Your task to perform on an android device: Open Chrome and go to the settings page Image 0: 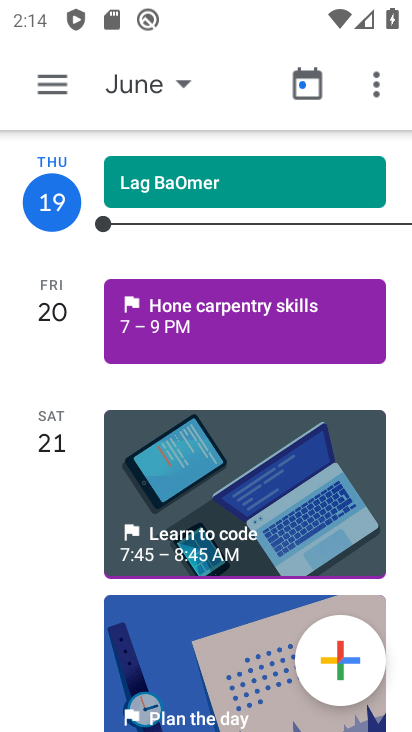
Step 0: press home button
Your task to perform on an android device: Open Chrome and go to the settings page Image 1: 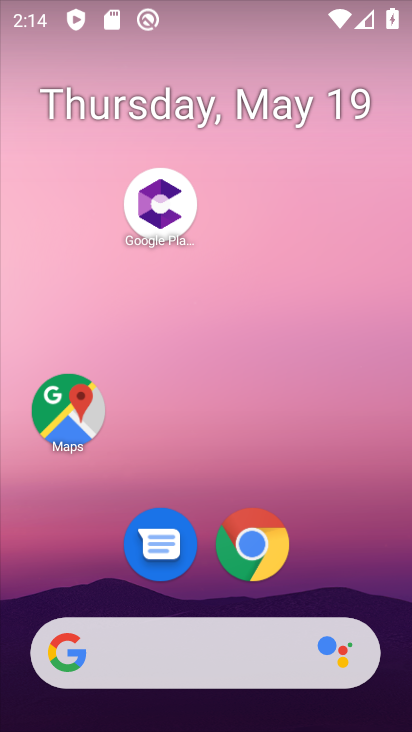
Step 1: drag from (264, 584) to (238, 170)
Your task to perform on an android device: Open Chrome and go to the settings page Image 2: 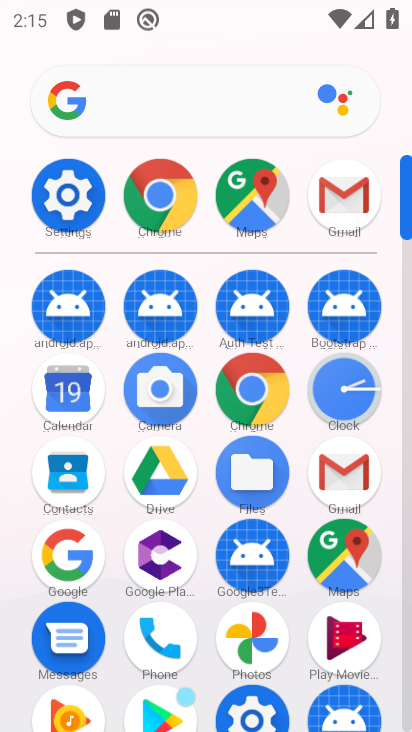
Step 2: click (144, 194)
Your task to perform on an android device: Open Chrome and go to the settings page Image 3: 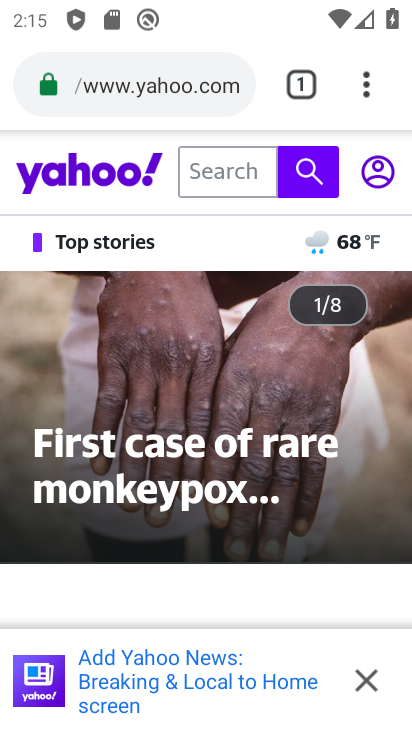
Step 3: click (361, 87)
Your task to perform on an android device: Open Chrome and go to the settings page Image 4: 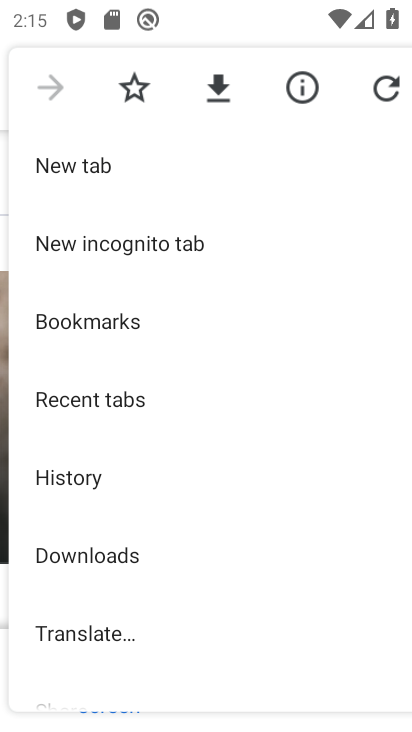
Step 4: drag from (183, 531) to (201, 364)
Your task to perform on an android device: Open Chrome and go to the settings page Image 5: 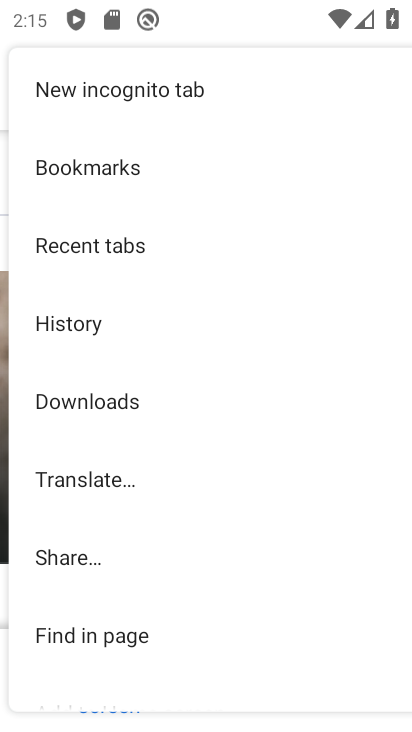
Step 5: drag from (167, 502) to (205, 271)
Your task to perform on an android device: Open Chrome and go to the settings page Image 6: 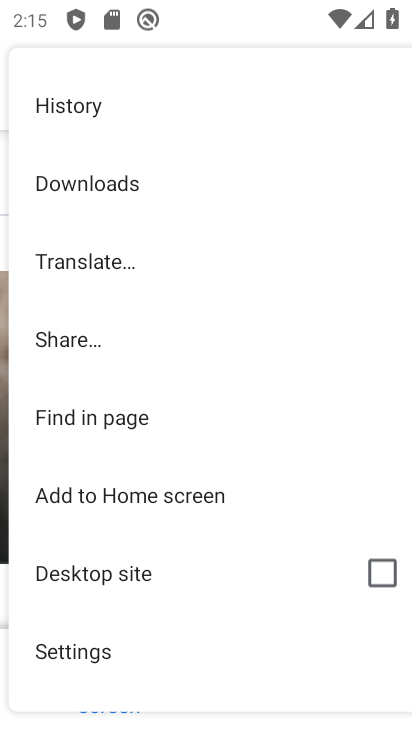
Step 6: click (95, 641)
Your task to perform on an android device: Open Chrome and go to the settings page Image 7: 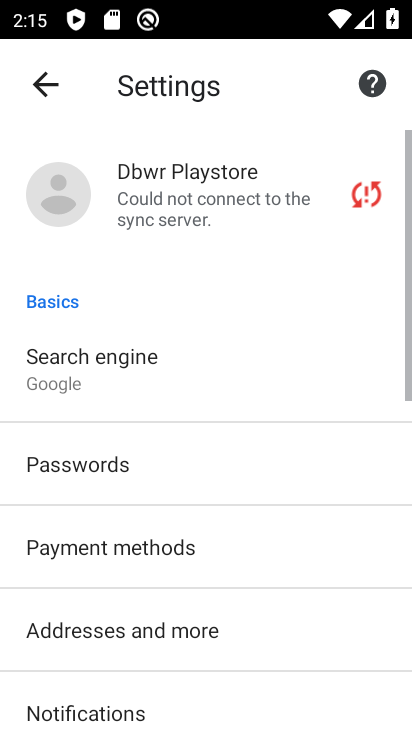
Step 7: task complete